Your task to perform on an android device: turn on the 12-hour format for clock Image 0: 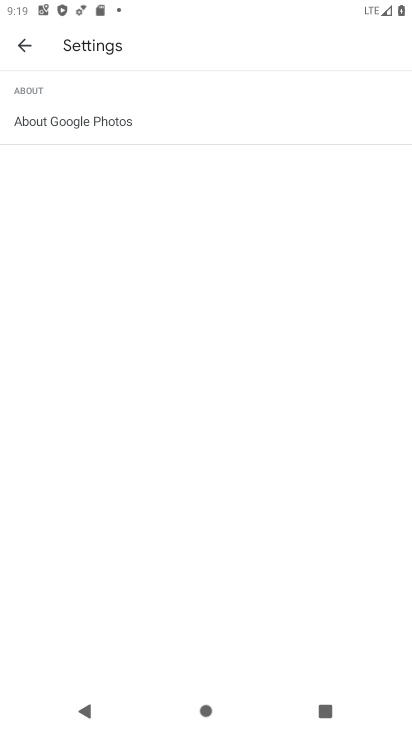
Step 0: press home button
Your task to perform on an android device: turn on the 12-hour format for clock Image 1: 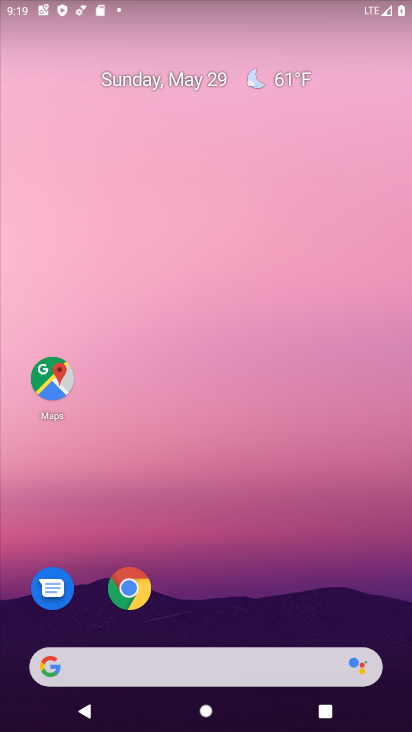
Step 1: drag from (303, 587) to (217, 78)
Your task to perform on an android device: turn on the 12-hour format for clock Image 2: 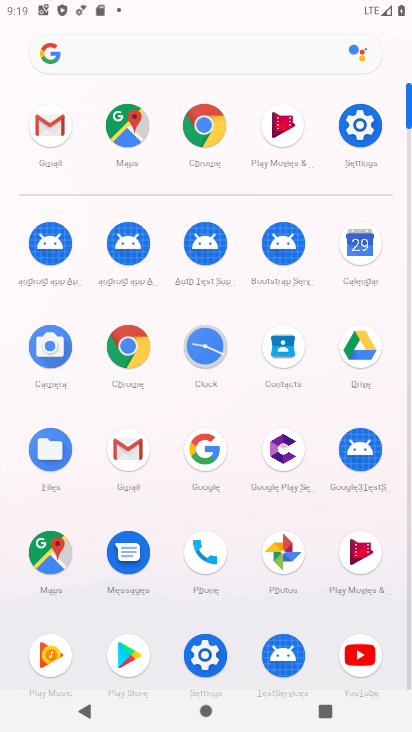
Step 2: click (206, 353)
Your task to perform on an android device: turn on the 12-hour format for clock Image 3: 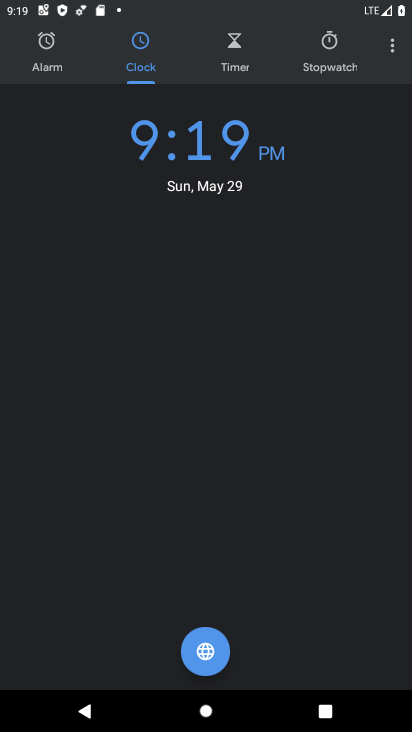
Step 3: click (400, 39)
Your task to perform on an android device: turn on the 12-hour format for clock Image 4: 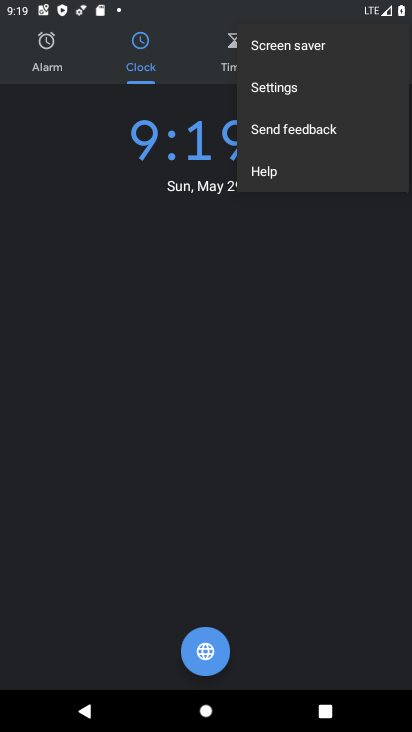
Step 4: click (286, 87)
Your task to perform on an android device: turn on the 12-hour format for clock Image 5: 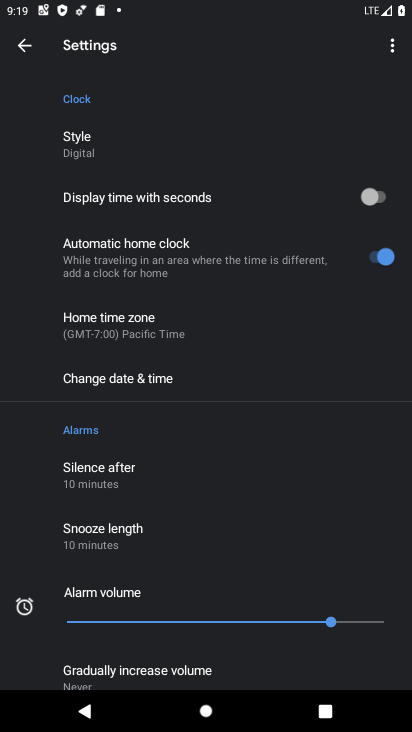
Step 5: click (144, 370)
Your task to perform on an android device: turn on the 12-hour format for clock Image 6: 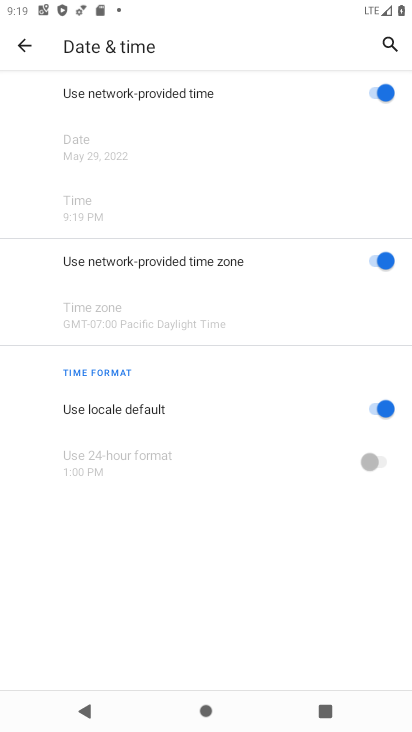
Step 6: task complete